Your task to perform on an android device: Open maps Image 0: 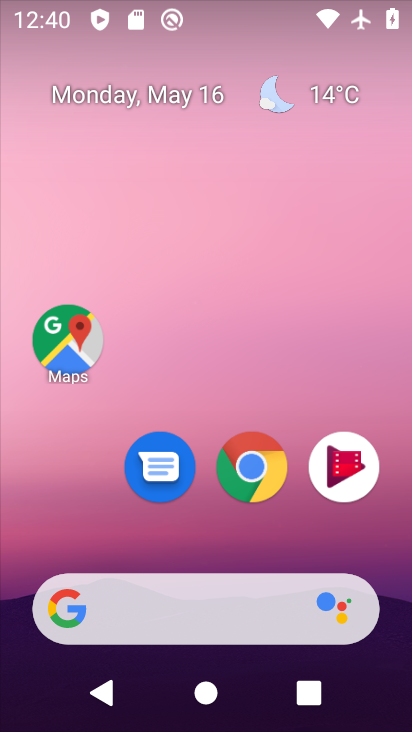
Step 0: click (74, 320)
Your task to perform on an android device: Open maps Image 1: 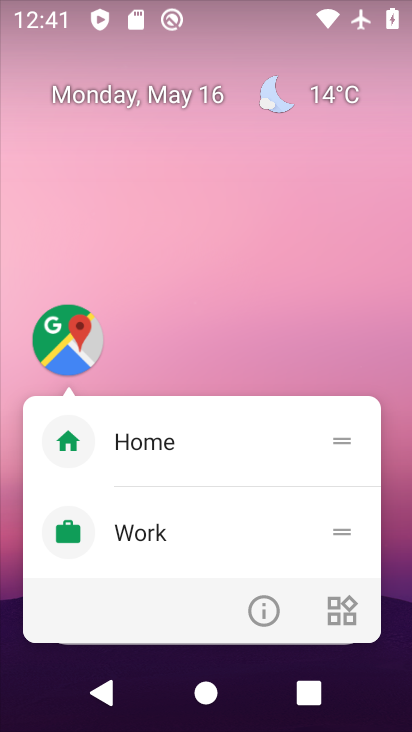
Step 1: click (68, 311)
Your task to perform on an android device: Open maps Image 2: 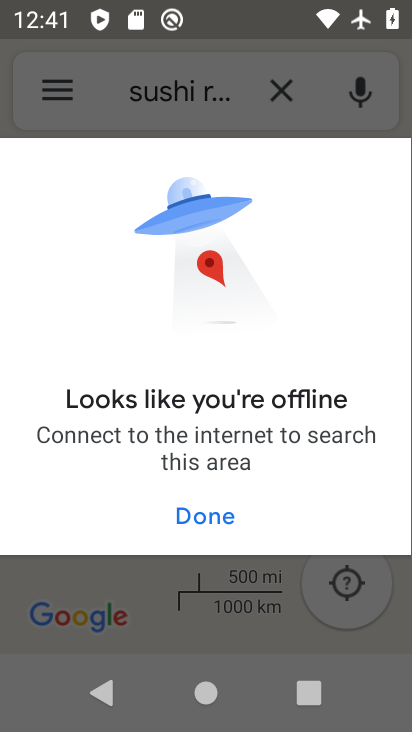
Step 2: task complete